Your task to perform on an android device: change the clock style Image 0: 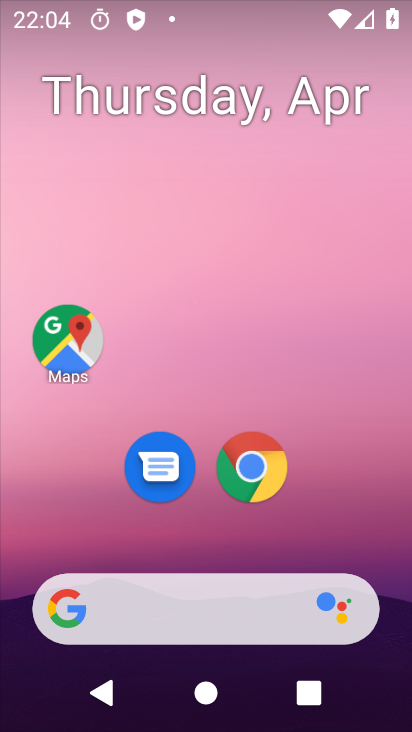
Step 0: drag from (205, 534) to (334, 2)
Your task to perform on an android device: change the clock style Image 1: 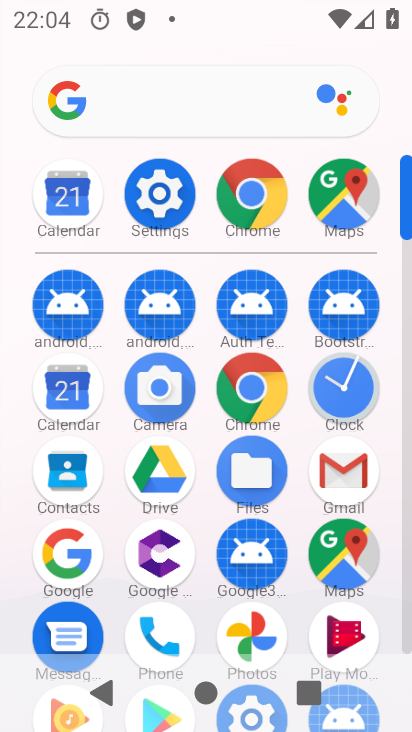
Step 1: click (349, 398)
Your task to perform on an android device: change the clock style Image 2: 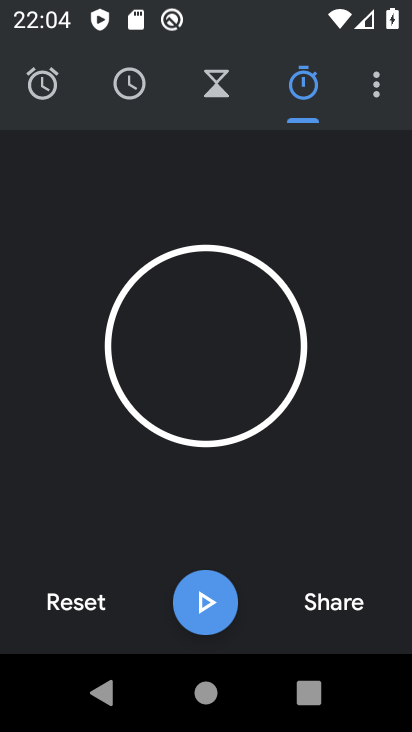
Step 2: click (367, 86)
Your task to perform on an android device: change the clock style Image 3: 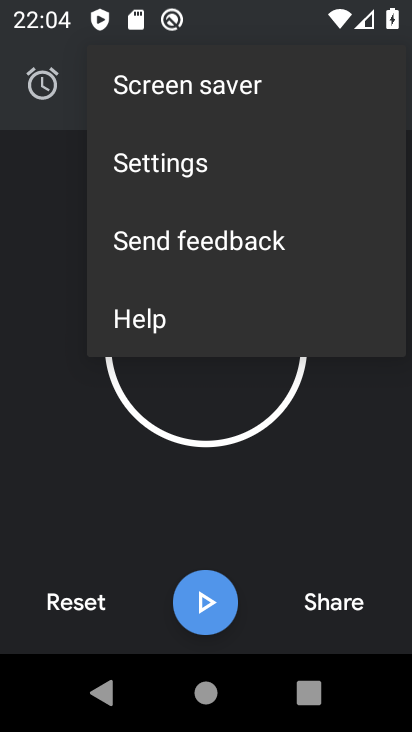
Step 3: click (140, 167)
Your task to perform on an android device: change the clock style Image 4: 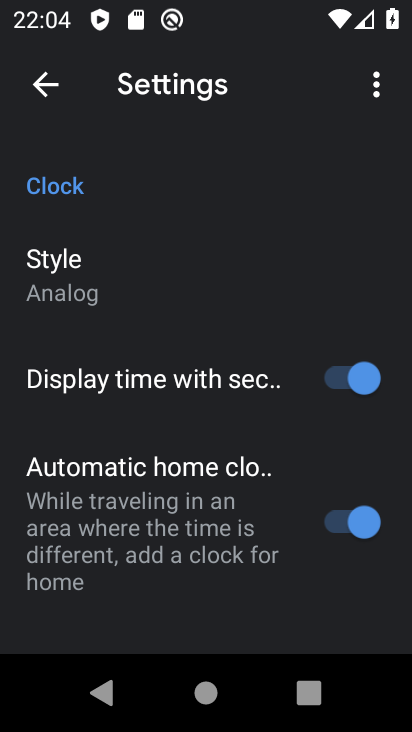
Step 4: click (66, 299)
Your task to perform on an android device: change the clock style Image 5: 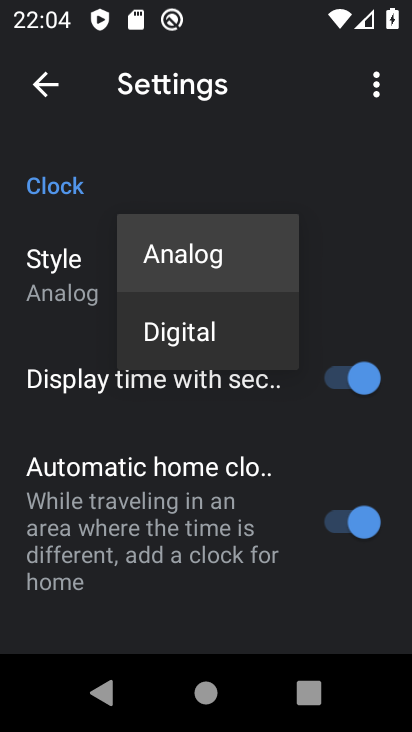
Step 5: click (187, 329)
Your task to perform on an android device: change the clock style Image 6: 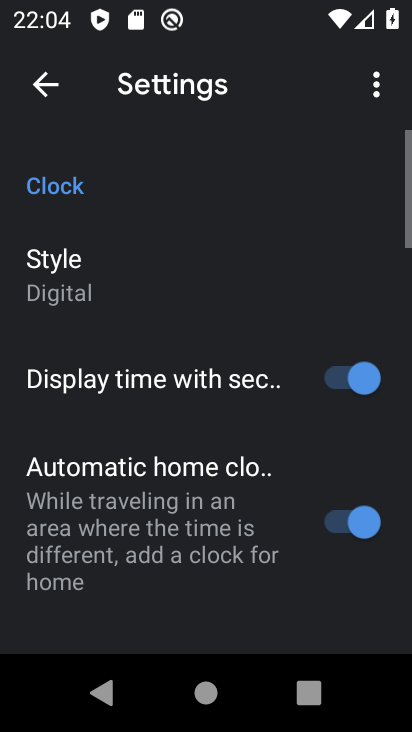
Step 6: task complete